Your task to perform on an android device: open sync settings in chrome Image 0: 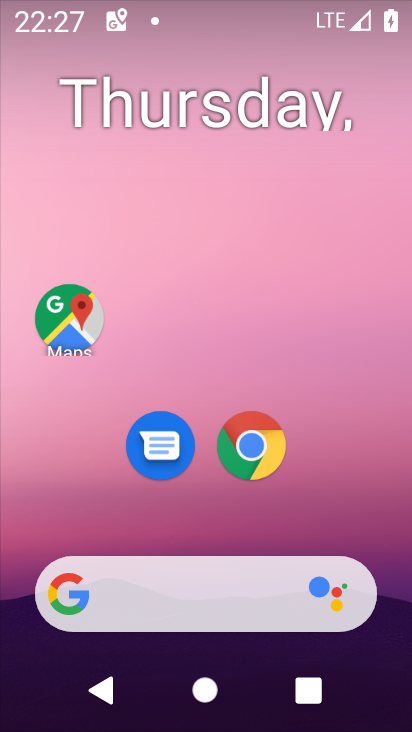
Step 0: drag from (219, 512) to (236, 153)
Your task to perform on an android device: open sync settings in chrome Image 1: 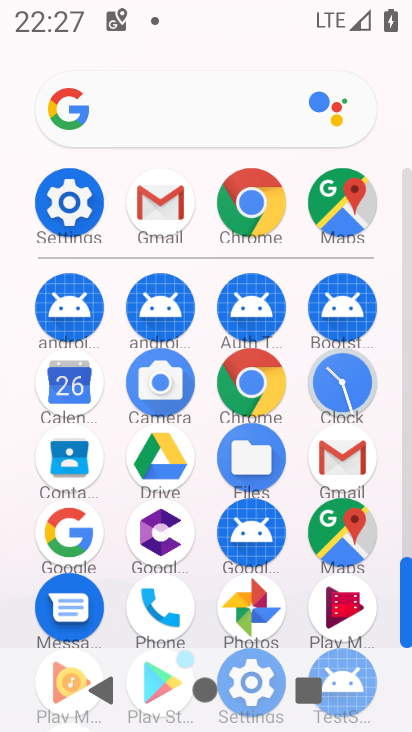
Step 1: drag from (195, 243) to (203, 94)
Your task to perform on an android device: open sync settings in chrome Image 2: 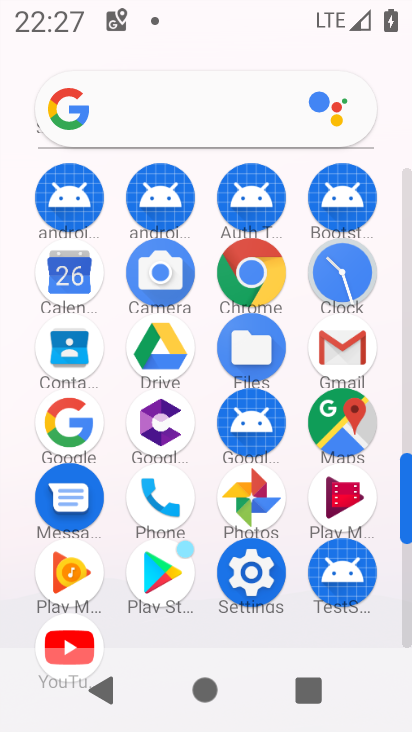
Step 2: click (259, 283)
Your task to perform on an android device: open sync settings in chrome Image 3: 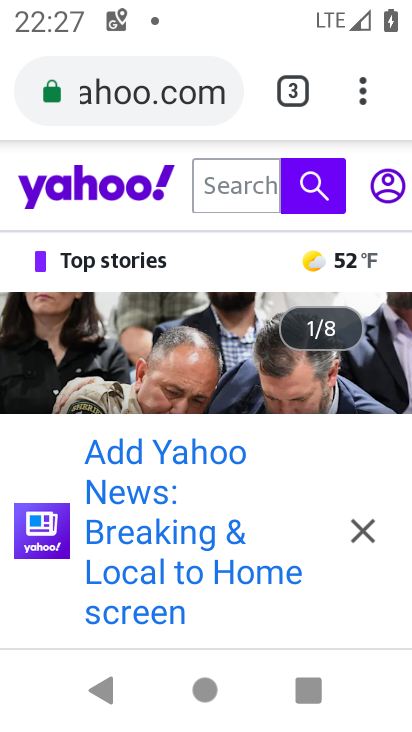
Step 3: click (349, 532)
Your task to perform on an android device: open sync settings in chrome Image 4: 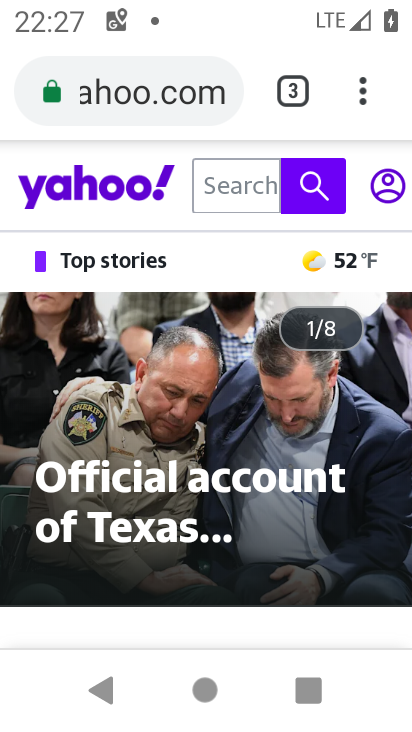
Step 4: click (360, 100)
Your task to perform on an android device: open sync settings in chrome Image 5: 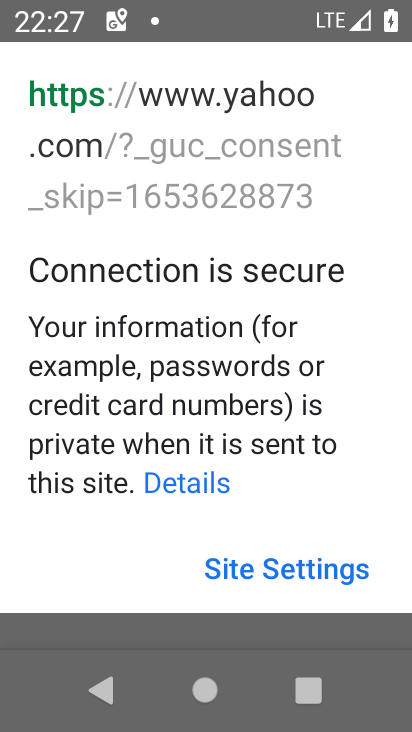
Step 5: click (315, 637)
Your task to perform on an android device: open sync settings in chrome Image 6: 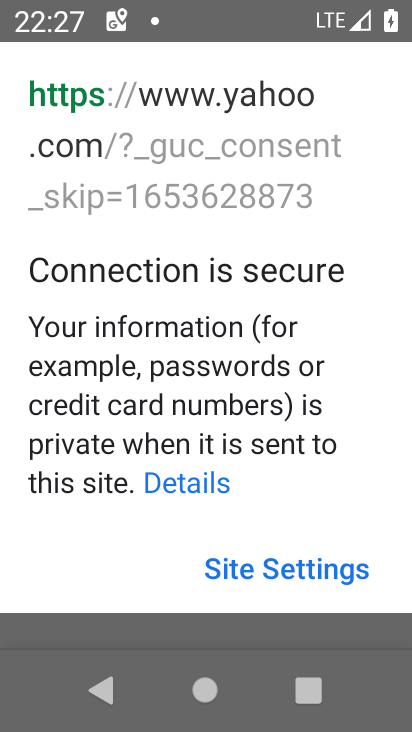
Step 6: click (234, 634)
Your task to perform on an android device: open sync settings in chrome Image 7: 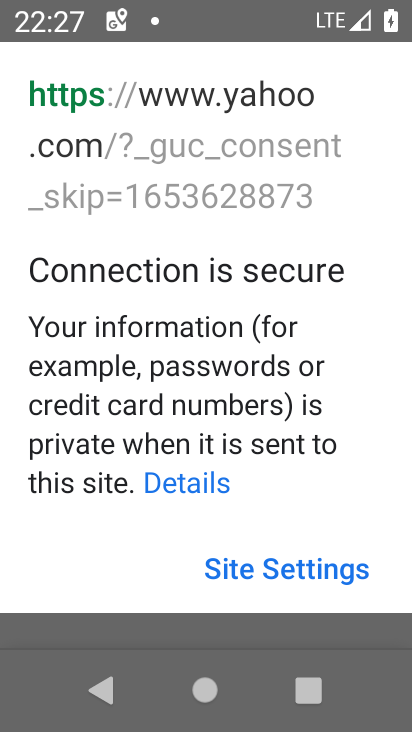
Step 7: click (258, 575)
Your task to perform on an android device: open sync settings in chrome Image 8: 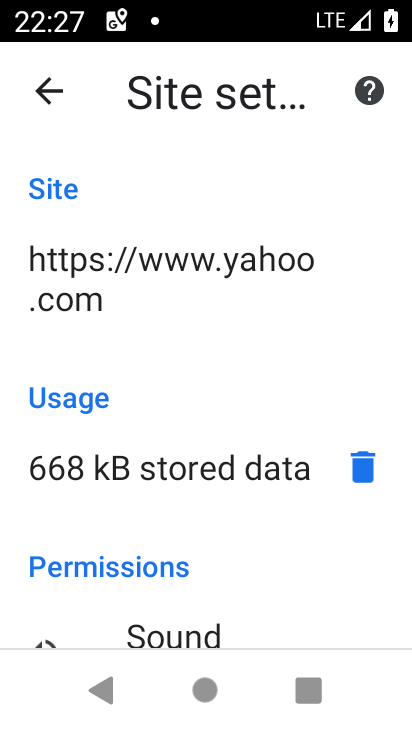
Step 8: press back button
Your task to perform on an android device: open sync settings in chrome Image 9: 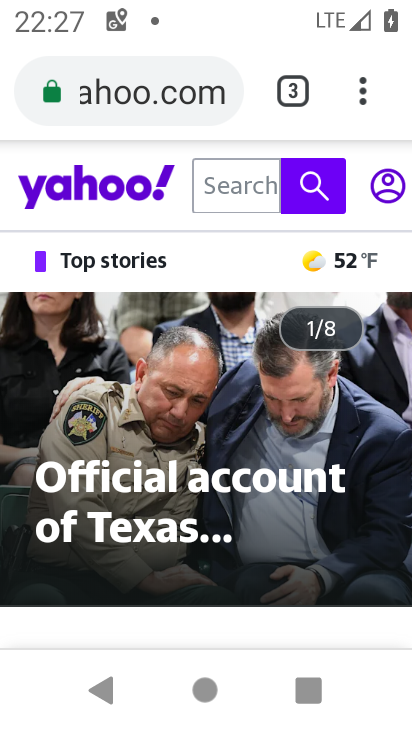
Step 9: click (368, 98)
Your task to perform on an android device: open sync settings in chrome Image 10: 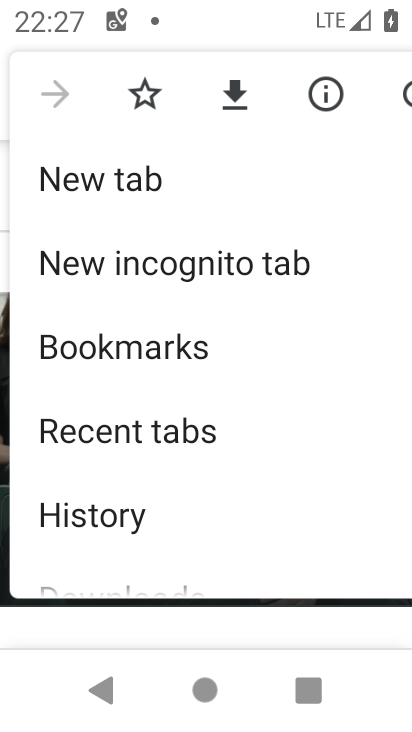
Step 10: drag from (165, 495) to (194, 173)
Your task to perform on an android device: open sync settings in chrome Image 11: 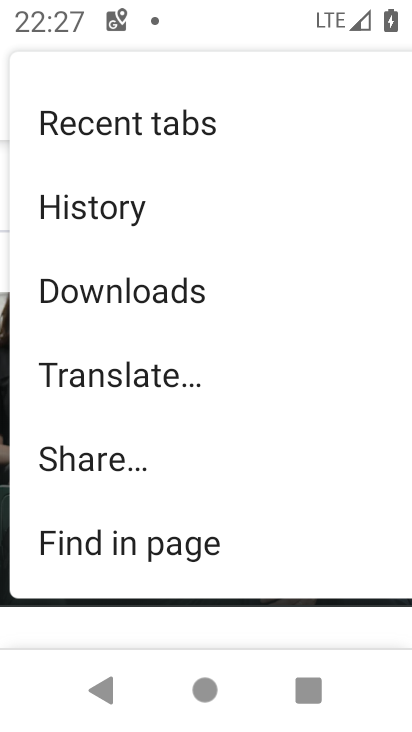
Step 11: drag from (165, 476) to (207, 141)
Your task to perform on an android device: open sync settings in chrome Image 12: 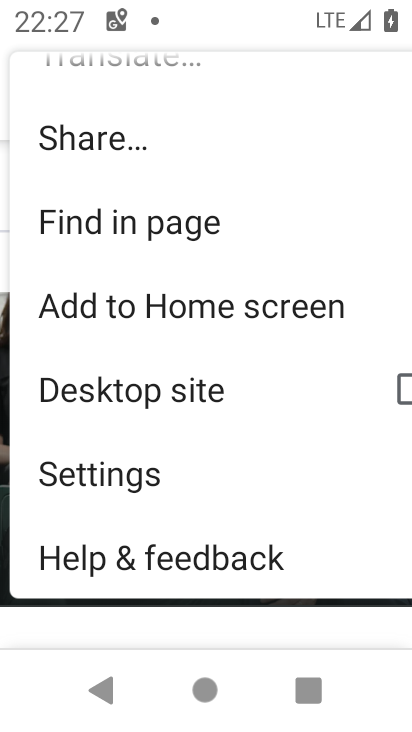
Step 12: click (155, 484)
Your task to perform on an android device: open sync settings in chrome Image 13: 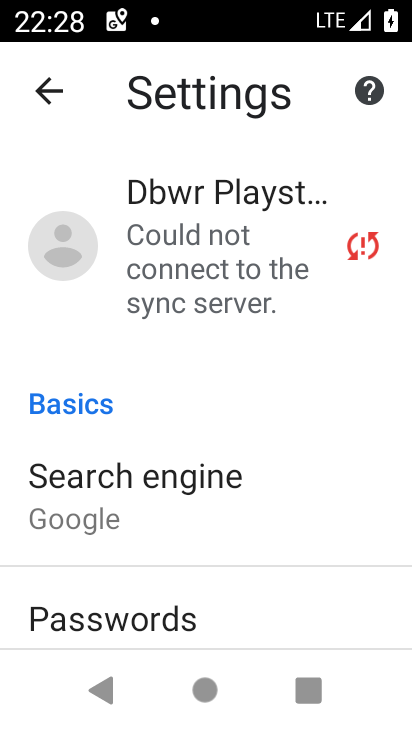
Step 13: drag from (213, 577) to (230, 240)
Your task to perform on an android device: open sync settings in chrome Image 14: 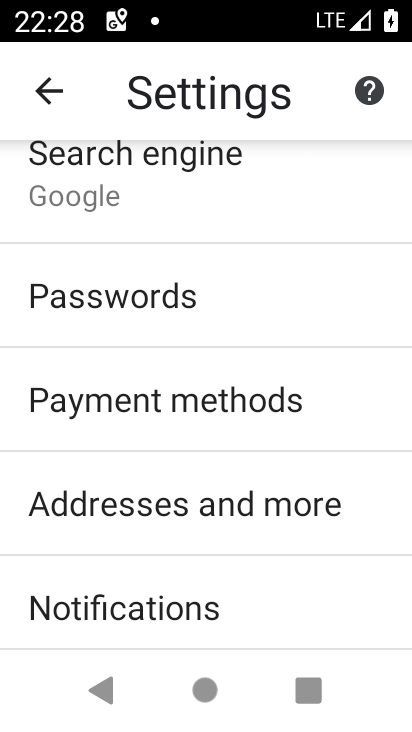
Step 14: drag from (233, 525) to (252, 254)
Your task to perform on an android device: open sync settings in chrome Image 15: 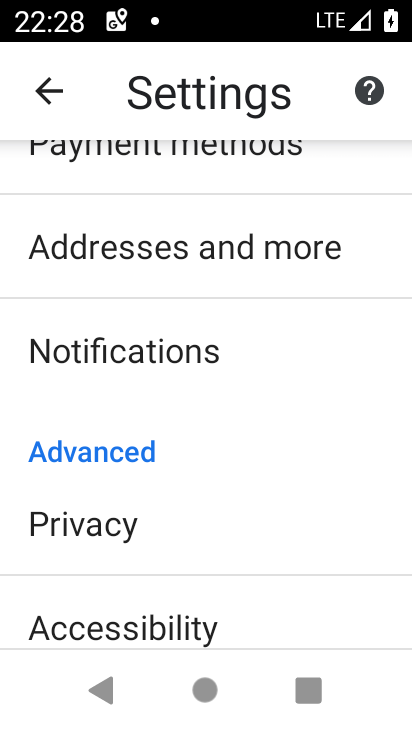
Step 15: drag from (229, 557) to (214, 657)
Your task to perform on an android device: open sync settings in chrome Image 16: 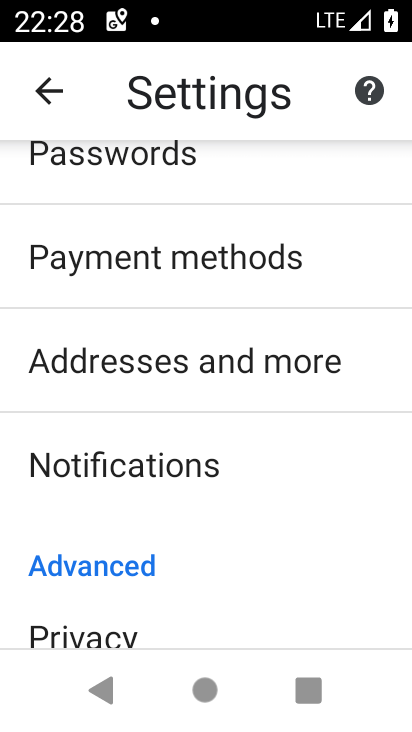
Step 16: drag from (236, 228) to (253, 653)
Your task to perform on an android device: open sync settings in chrome Image 17: 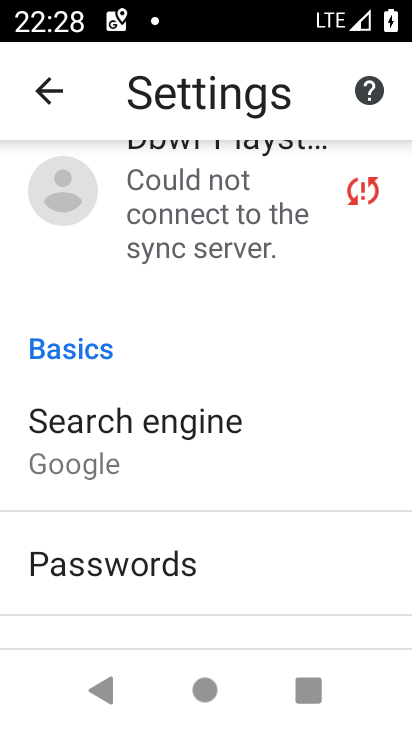
Step 17: click (233, 257)
Your task to perform on an android device: open sync settings in chrome Image 18: 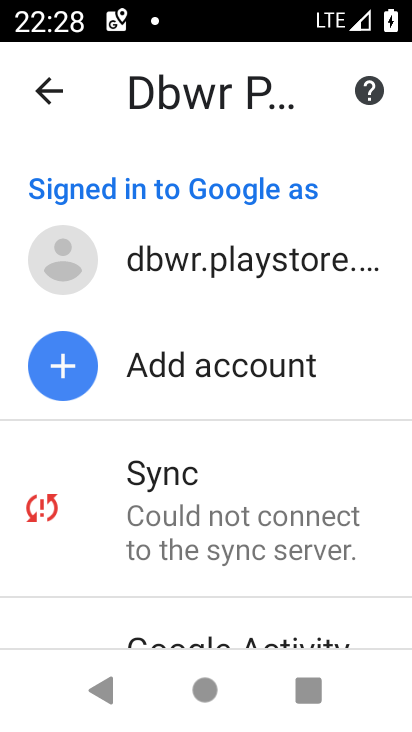
Step 18: click (221, 502)
Your task to perform on an android device: open sync settings in chrome Image 19: 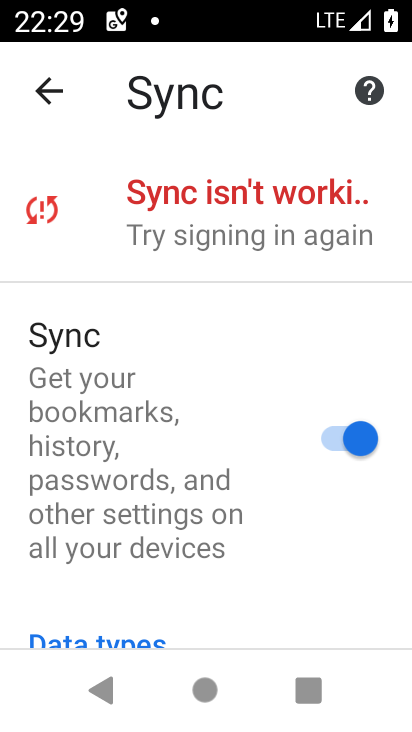
Step 19: task complete